Your task to perform on an android device: Open maps Image 0: 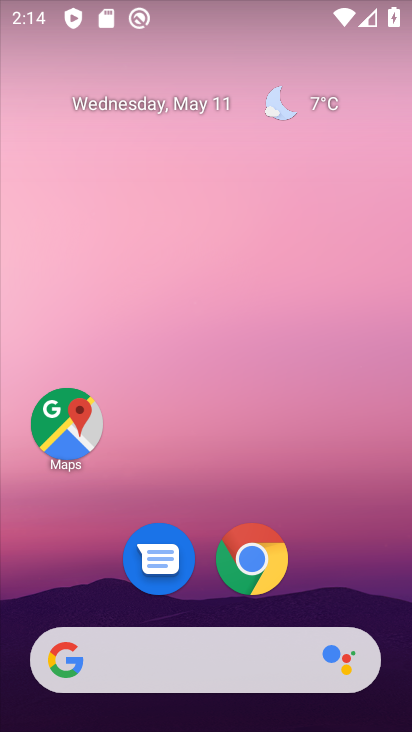
Step 0: click (68, 417)
Your task to perform on an android device: Open maps Image 1: 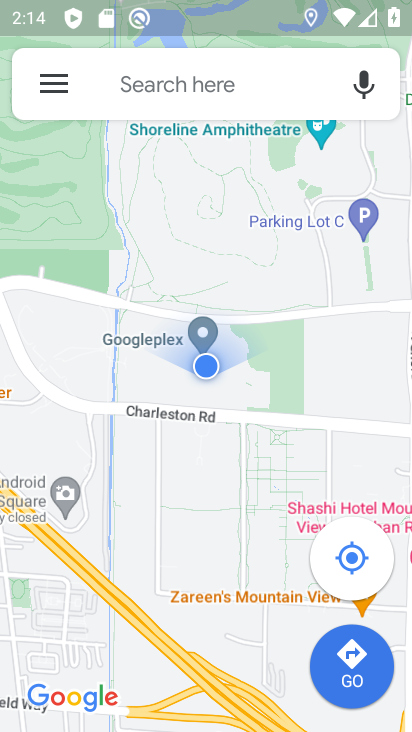
Step 1: task complete